Your task to perform on an android device: Go to Wikipedia Image 0: 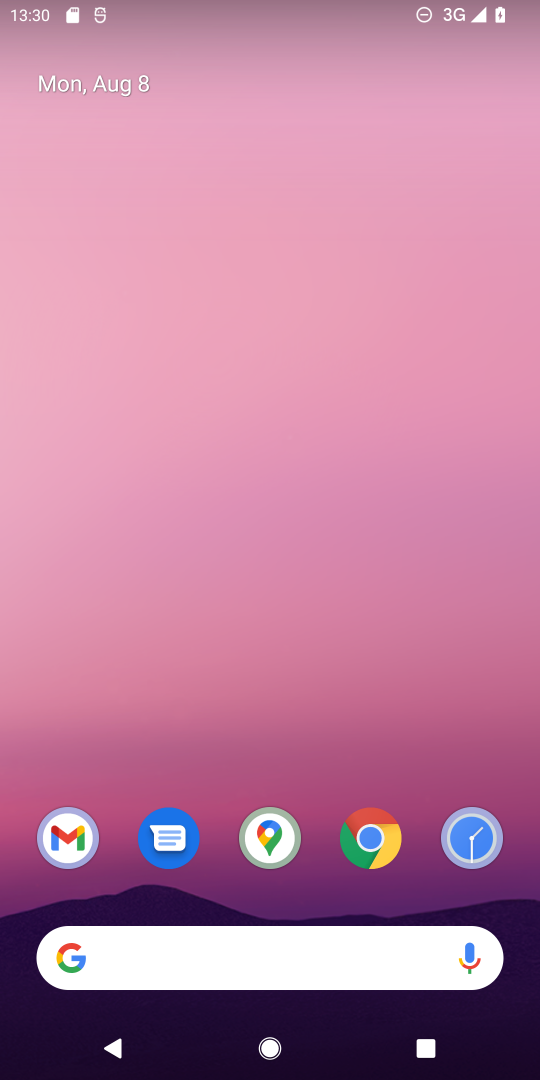
Step 0: press home button
Your task to perform on an android device: Go to Wikipedia Image 1: 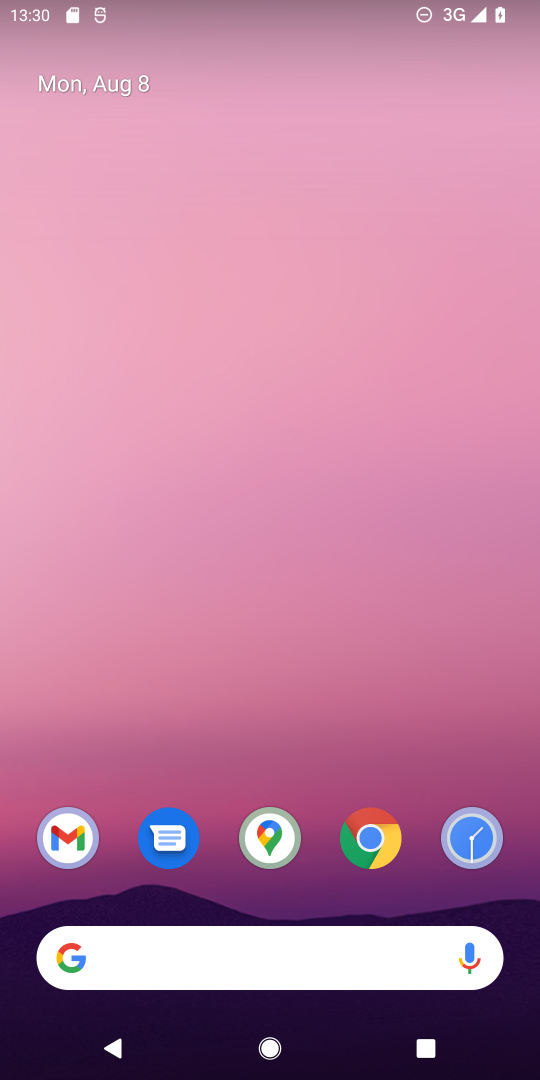
Step 1: click (70, 959)
Your task to perform on an android device: Go to Wikipedia Image 2: 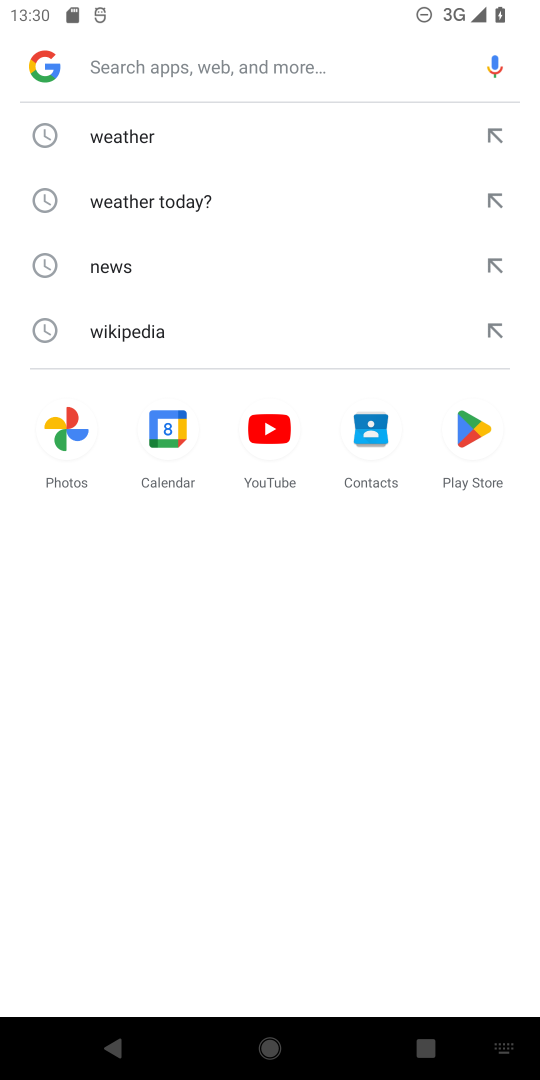
Step 2: click (130, 332)
Your task to perform on an android device: Go to Wikipedia Image 3: 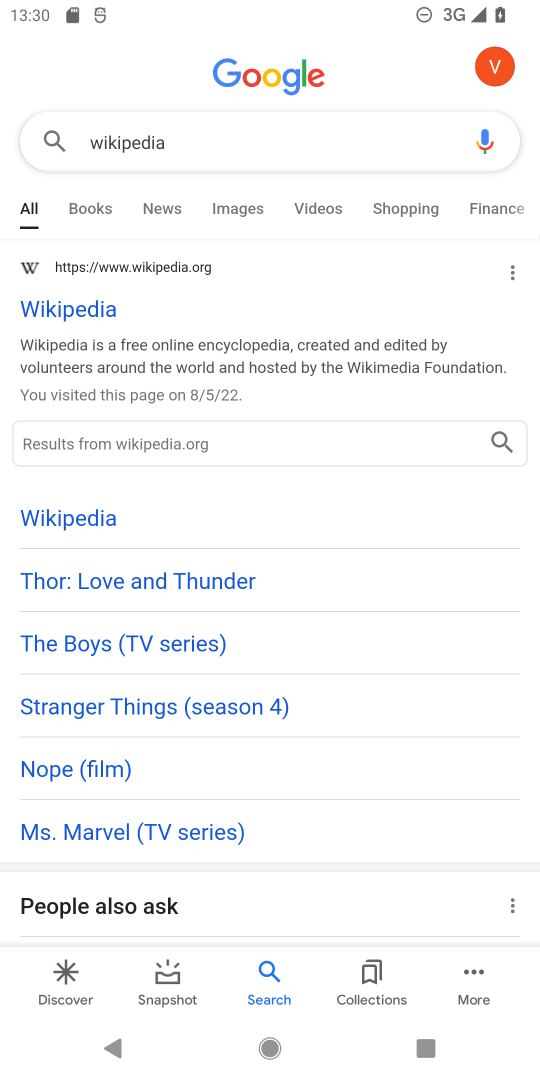
Step 3: click (65, 314)
Your task to perform on an android device: Go to Wikipedia Image 4: 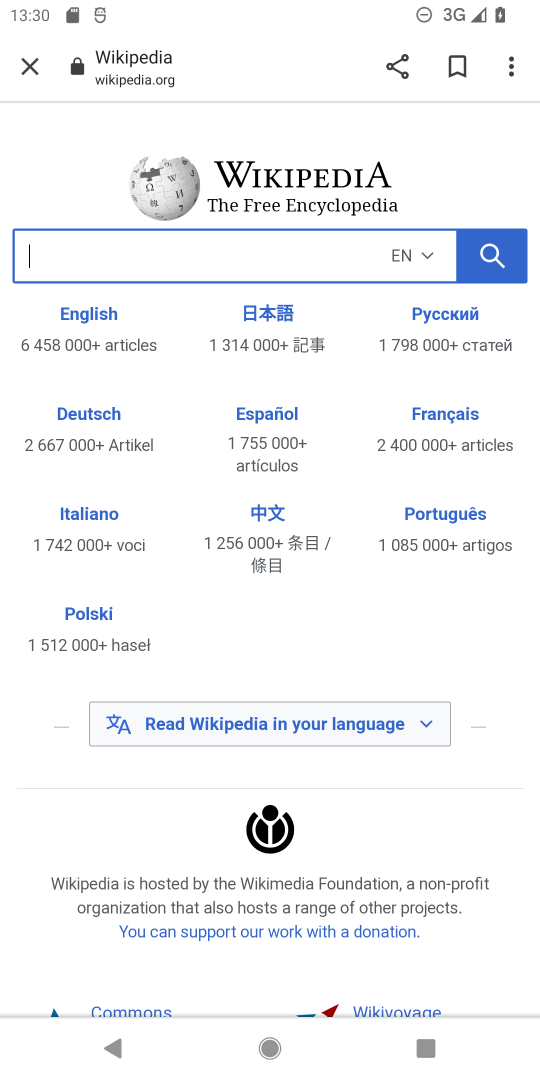
Step 4: task complete